Your task to perform on an android device: Go to privacy settings Image 0: 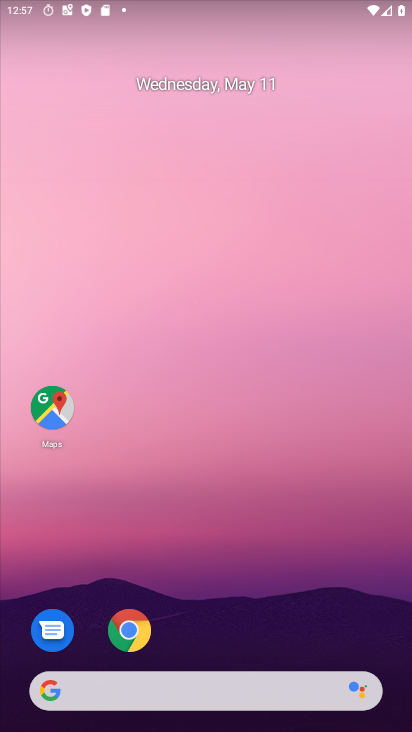
Step 0: drag from (301, 588) to (288, 150)
Your task to perform on an android device: Go to privacy settings Image 1: 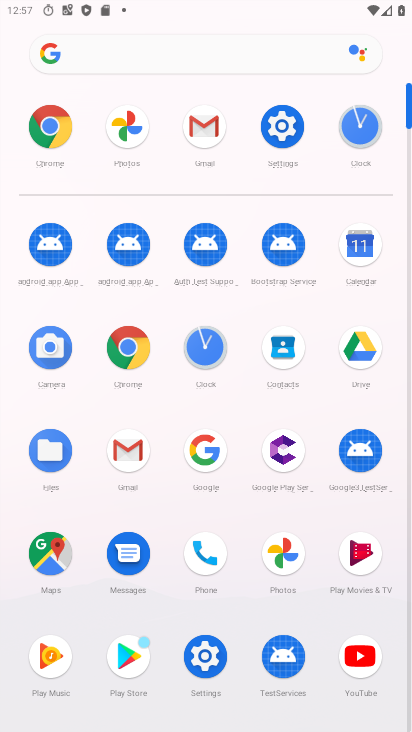
Step 1: click (276, 132)
Your task to perform on an android device: Go to privacy settings Image 2: 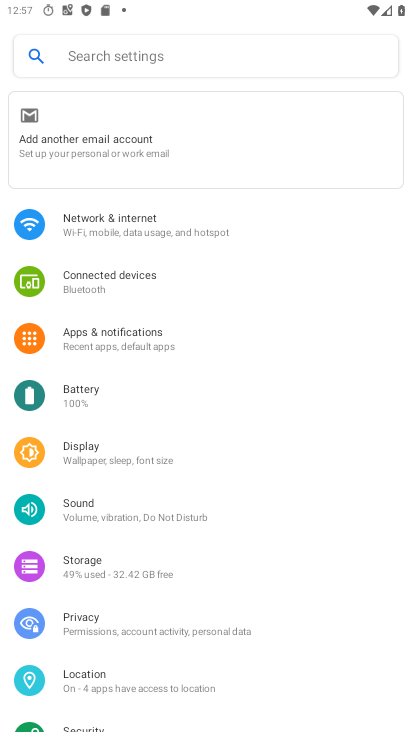
Step 2: click (134, 635)
Your task to perform on an android device: Go to privacy settings Image 3: 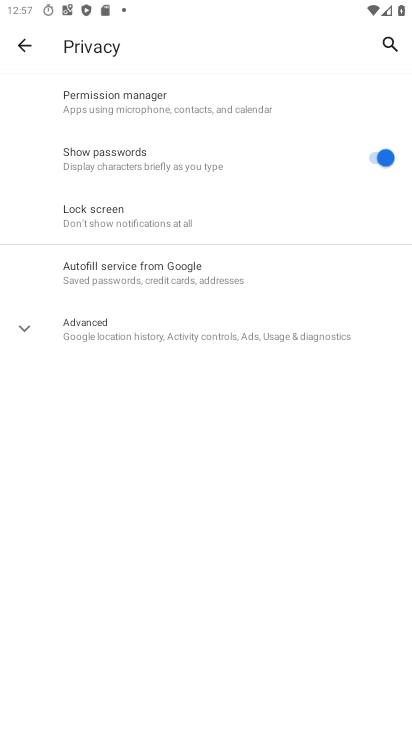
Step 3: task complete